Your task to perform on an android device: Show me recent news Image 0: 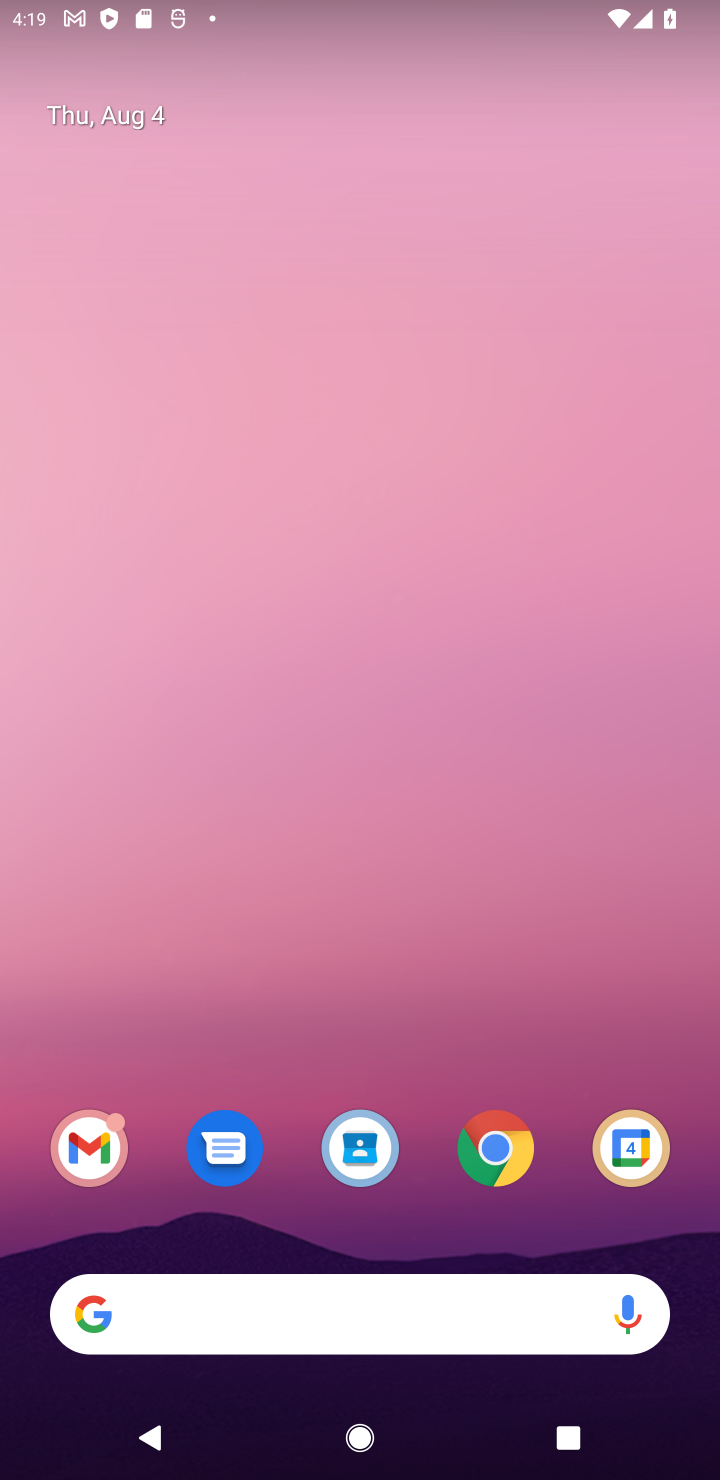
Step 0: drag from (13, 674) to (717, 627)
Your task to perform on an android device: Show me recent news Image 1: 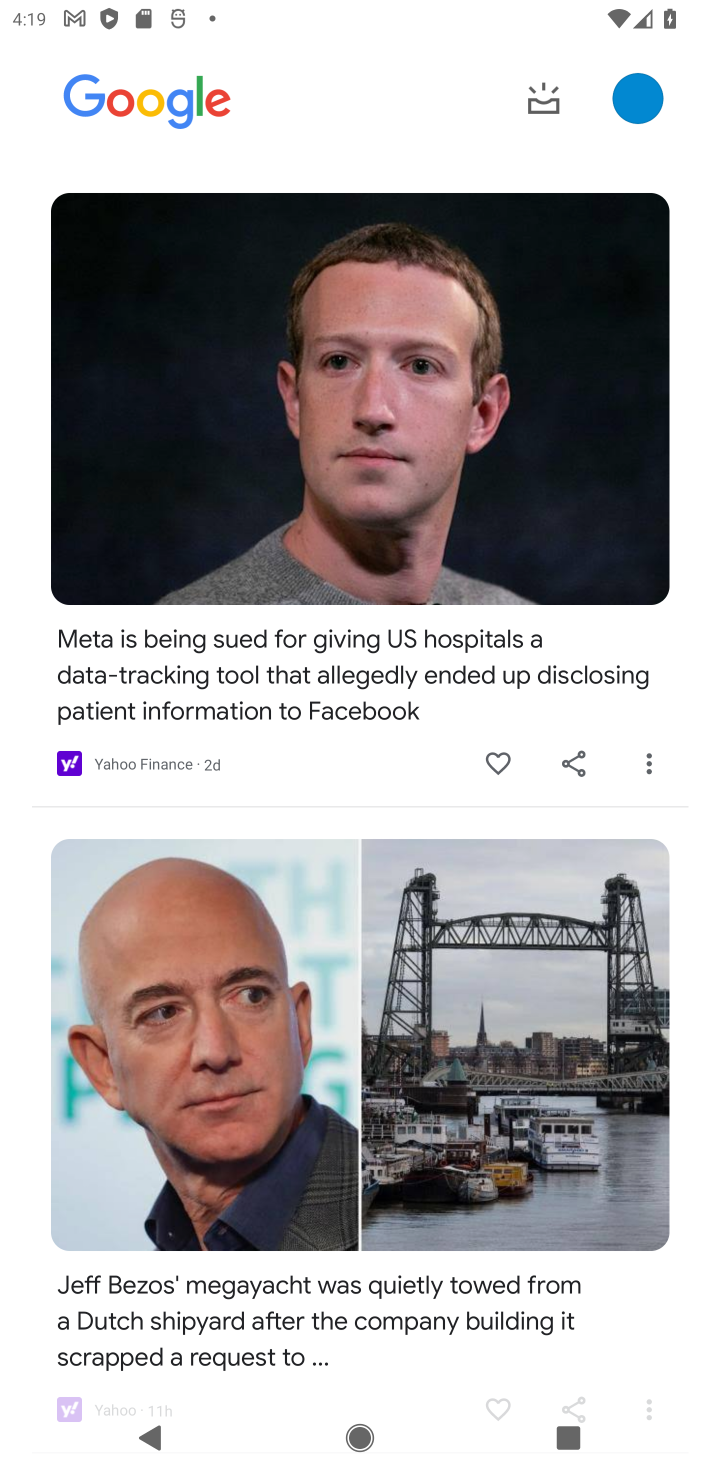
Step 1: task complete